Your task to perform on an android device: What's on my calendar today? Image 0: 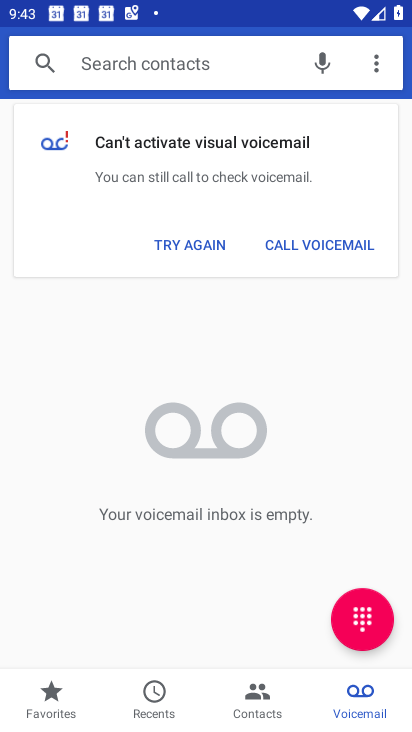
Step 0: press home button
Your task to perform on an android device: What's on my calendar today? Image 1: 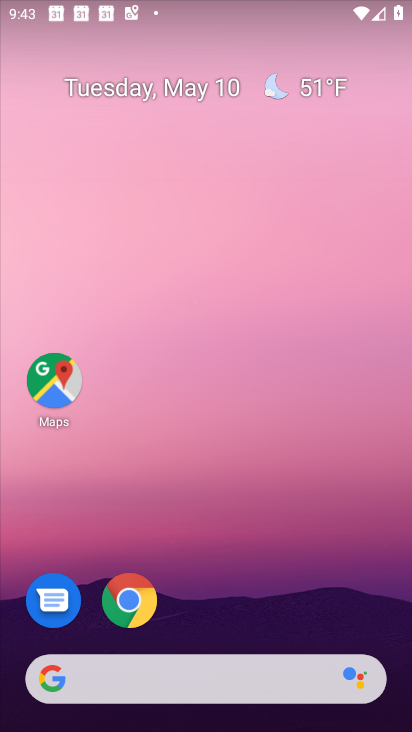
Step 1: drag from (224, 592) to (212, 10)
Your task to perform on an android device: What's on my calendar today? Image 2: 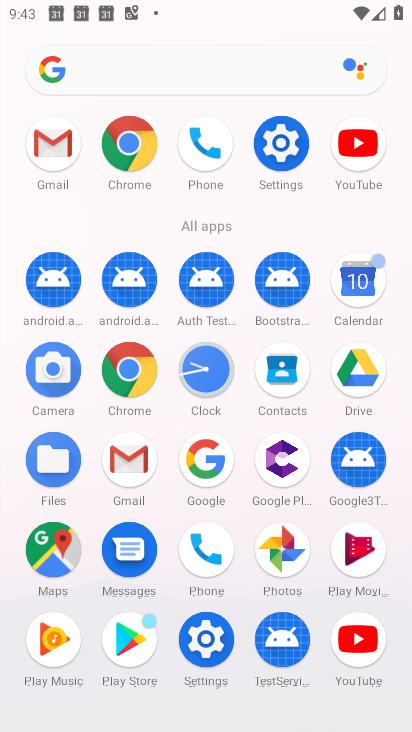
Step 2: click (286, 380)
Your task to perform on an android device: What's on my calendar today? Image 3: 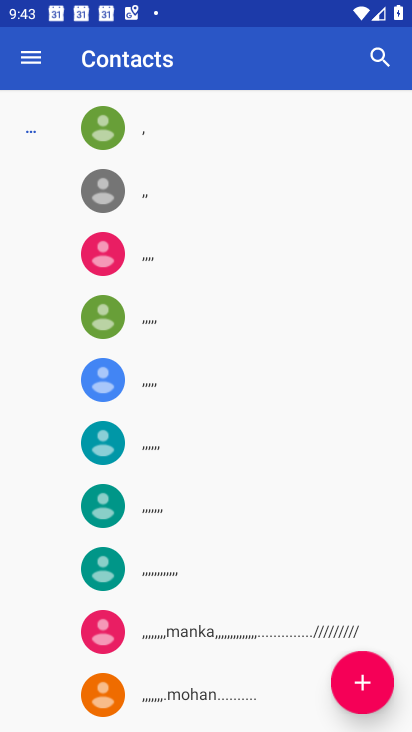
Step 3: press back button
Your task to perform on an android device: What's on my calendar today? Image 4: 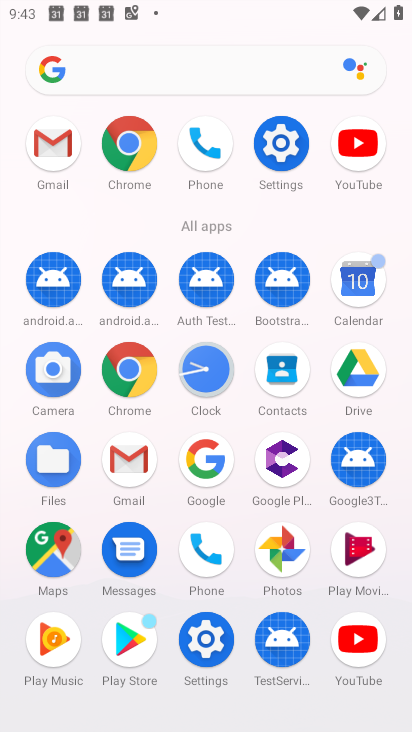
Step 4: click (366, 270)
Your task to perform on an android device: What's on my calendar today? Image 5: 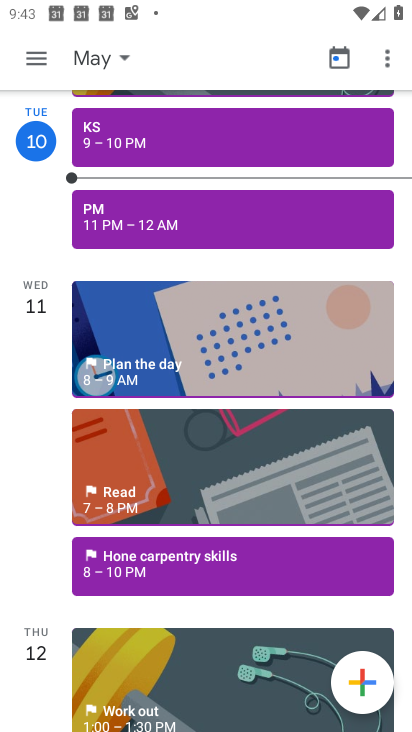
Step 5: task complete